Your task to perform on an android device: Open Google Maps Image 0: 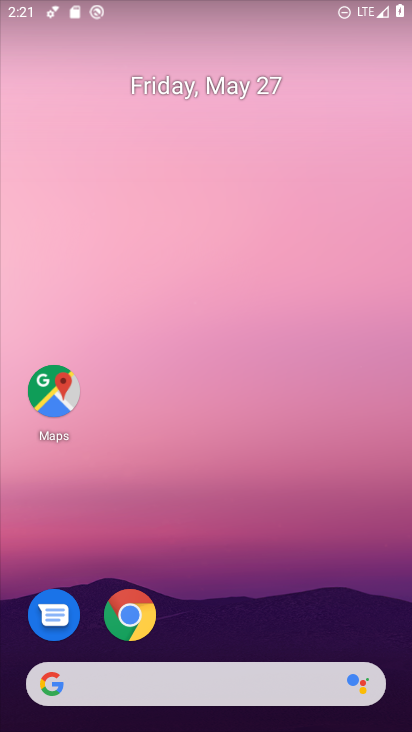
Step 0: drag from (250, 624) to (225, 74)
Your task to perform on an android device: Open Google Maps Image 1: 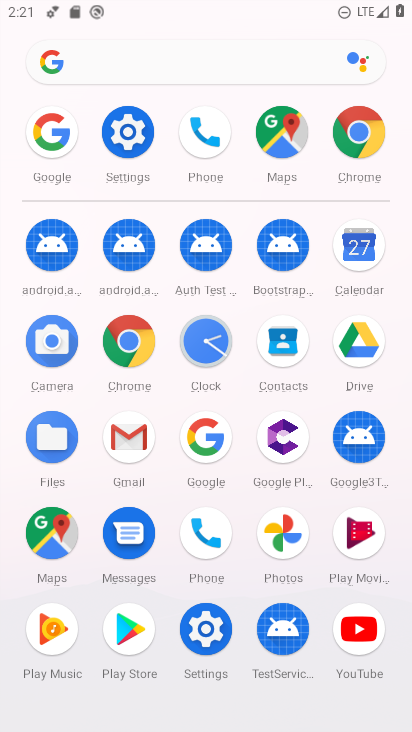
Step 1: click (71, 536)
Your task to perform on an android device: Open Google Maps Image 2: 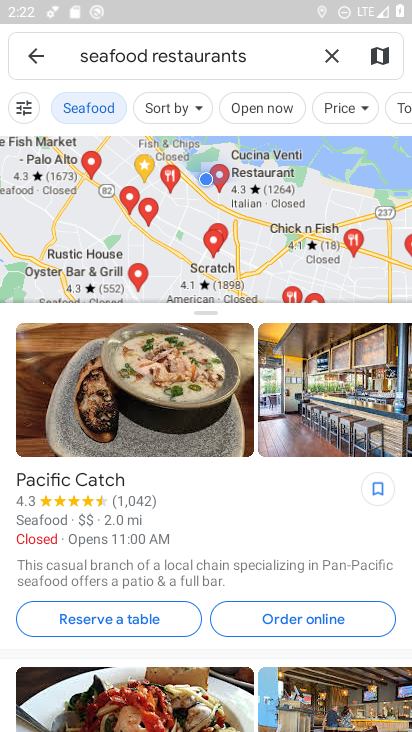
Step 2: task complete